Your task to perform on an android device: Open settings on Google Maps Image 0: 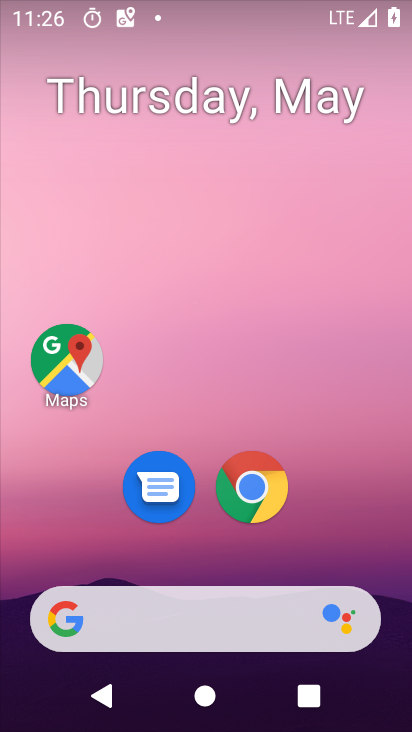
Step 0: drag from (220, 585) to (247, 21)
Your task to perform on an android device: Open settings on Google Maps Image 1: 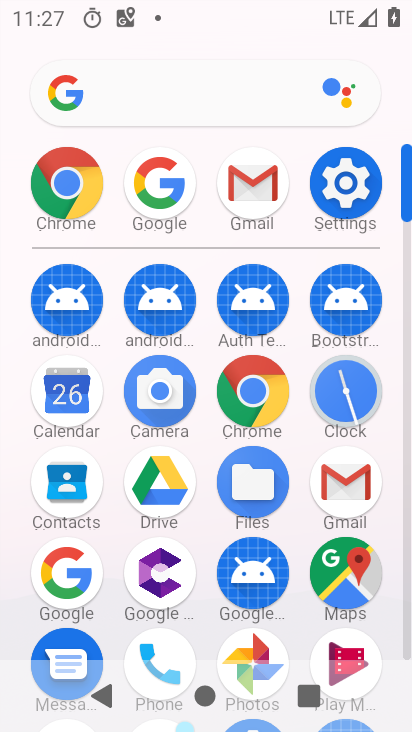
Step 1: drag from (261, 480) to (275, 267)
Your task to perform on an android device: Open settings on Google Maps Image 2: 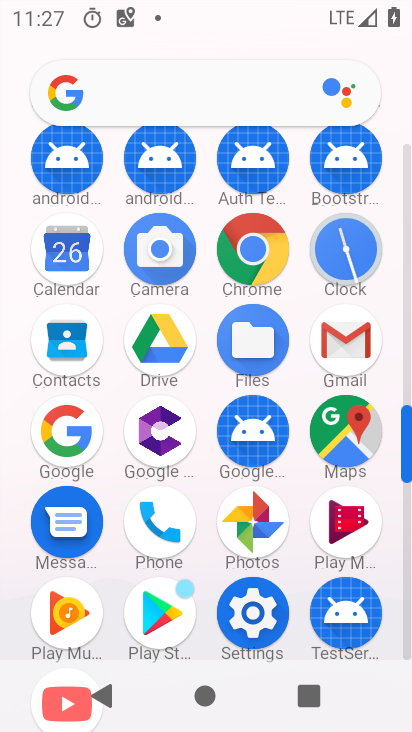
Step 2: click (357, 441)
Your task to perform on an android device: Open settings on Google Maps Image 3: 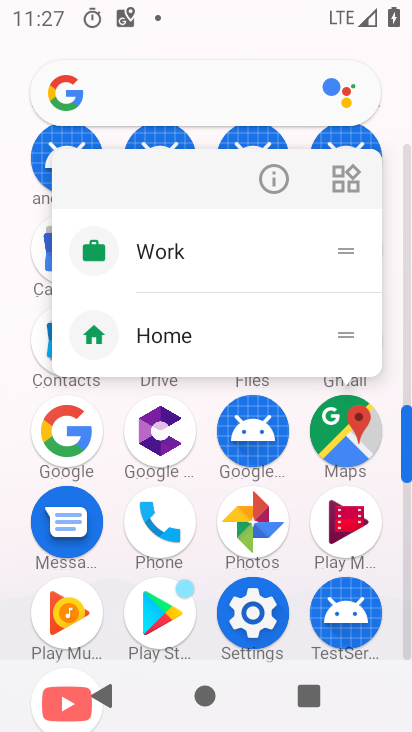
Step 3: click (346, 447)
Your task to perform on an android device: Open settings on Google Maps Image 4: 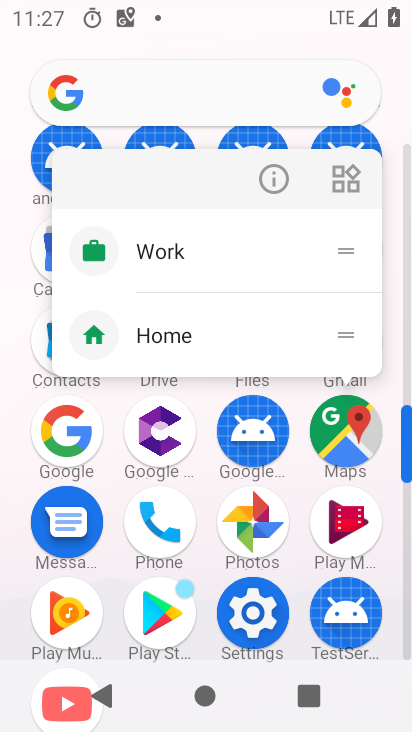
Step 4: click (342, 438)
Your task to perform on an android device: Open settings on Google Maps Image 5: 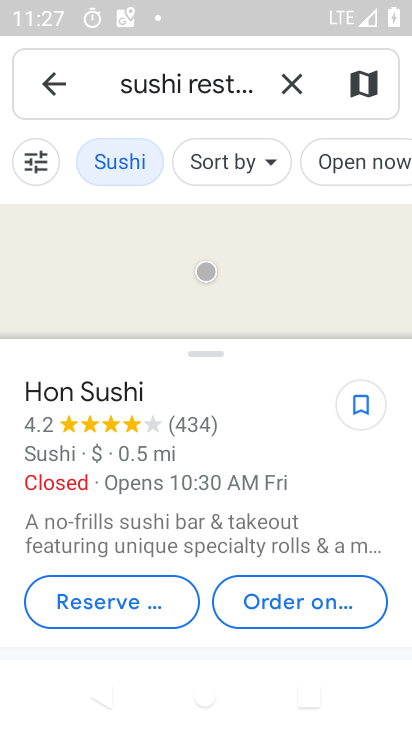
Step 5: click (47, 75)
Your task to perform on an android device: Open settings on Google Maps Image 6: 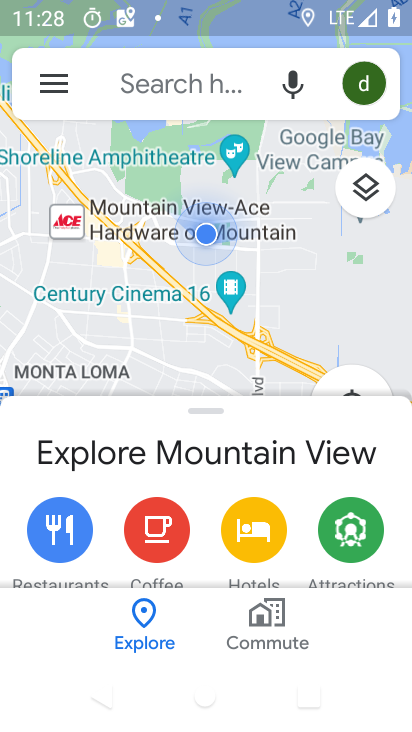
Step 6: click (51, 78)
Your task to perform on an android device: Open settings on Google Maps Image 7: 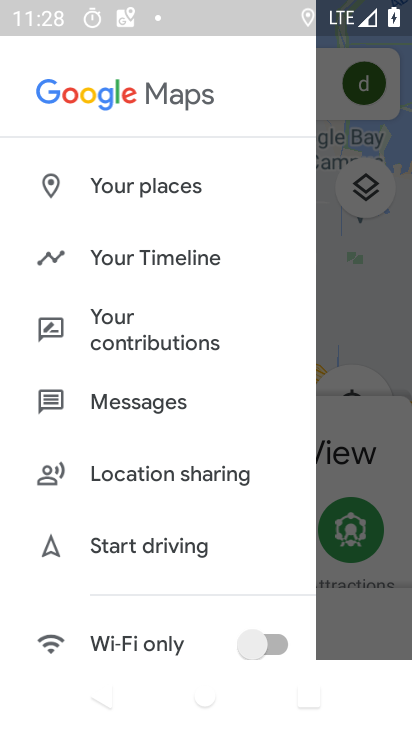
Step 7: drag from (130, 516) to (166, 70)
Your task to perform on an android device: Open settings on Google Maps Image 8: 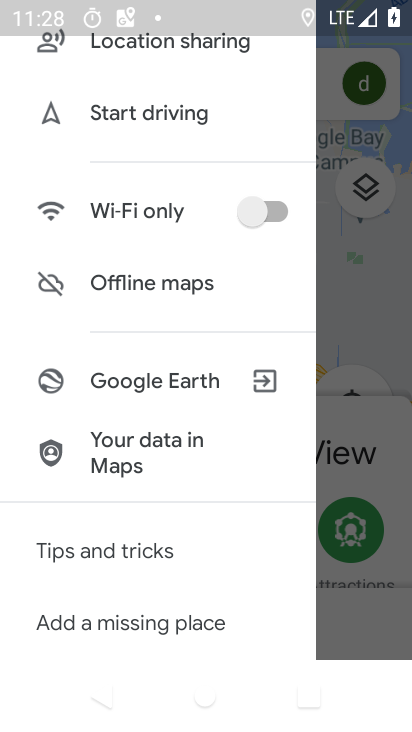
Step 8: drag from (142, 533) to (177, 222)
Your task to perform on an android device: Open settings on Google Maps Image 9: 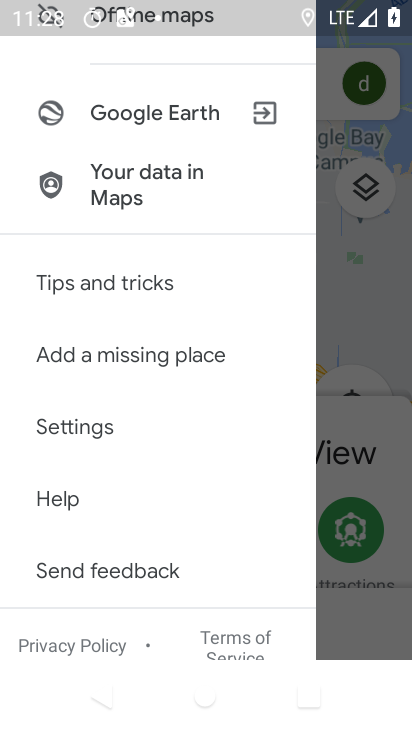
Step 9: click (101, 438)
Your task to perform on an android device: Open settings on Google Maps Image 10: 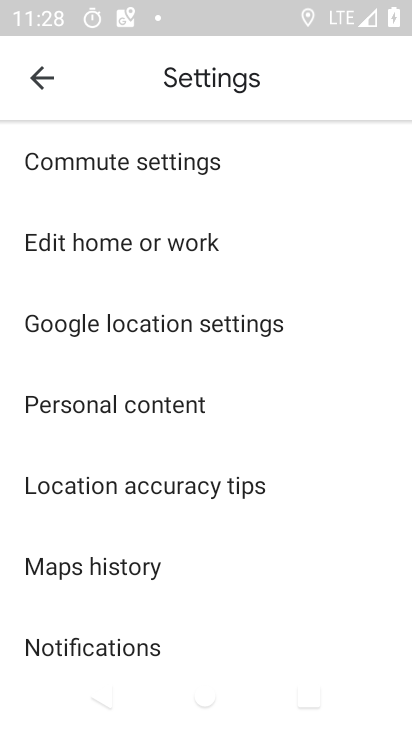
Step 10: task complete